Your task to perform on an android device: Open internet settings Image 0: 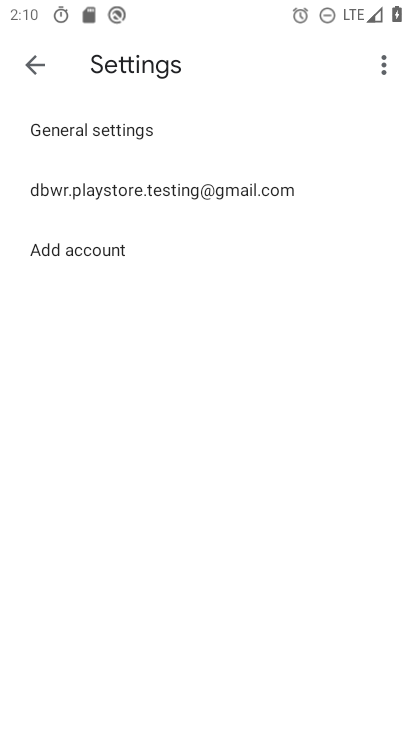
Step 0: press home button
Your task to perform on an android device: Open internet settings Image 1: 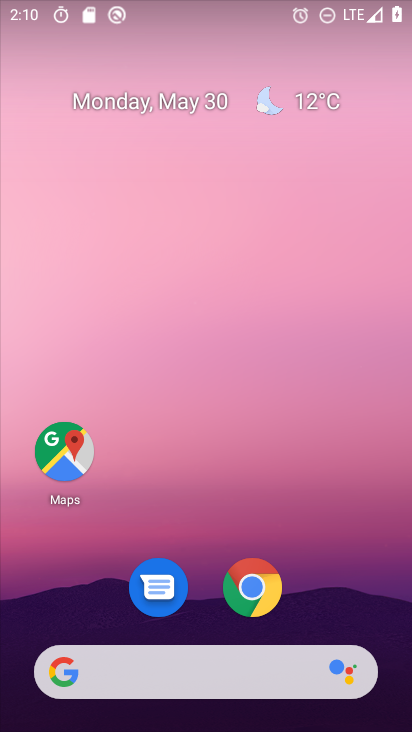
Step 1: drag from (295, 597) to (317, 57)
Your task to perform on an android device: Open internet settings Image 2: 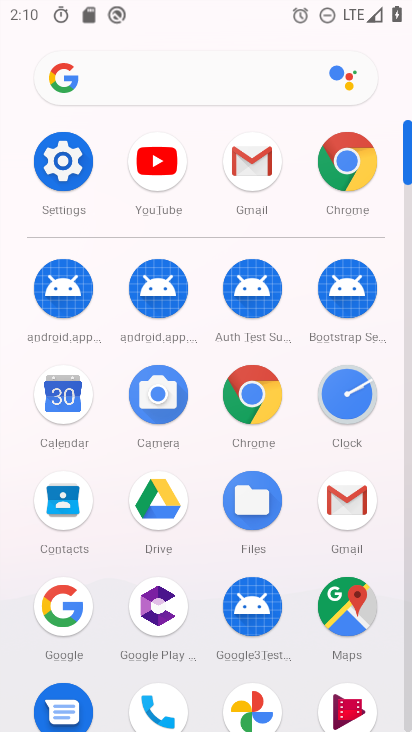
Step 2: click (59, 155)
Your task to perform on an android device: Open internet settings Image 3: 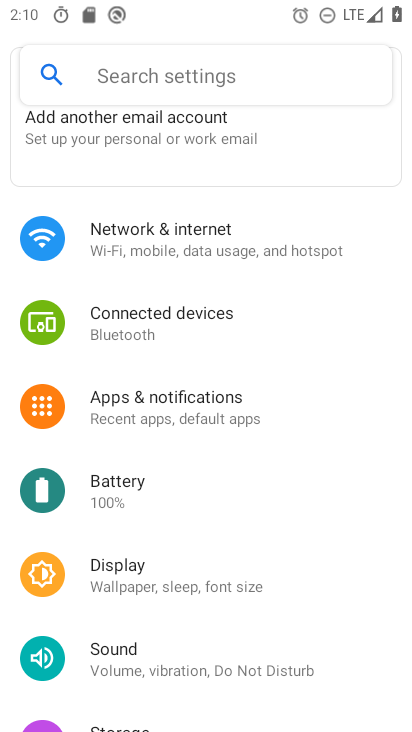
Step 3: click (155, 226)
Your task to perform on an android device: Open internet settings Image 4: 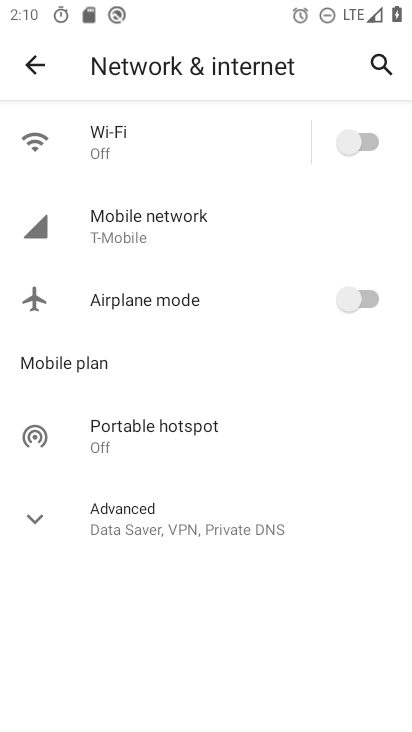
Step 4: click (112, 522)
Your task to perform on an android device: Open internet settings Image 5: 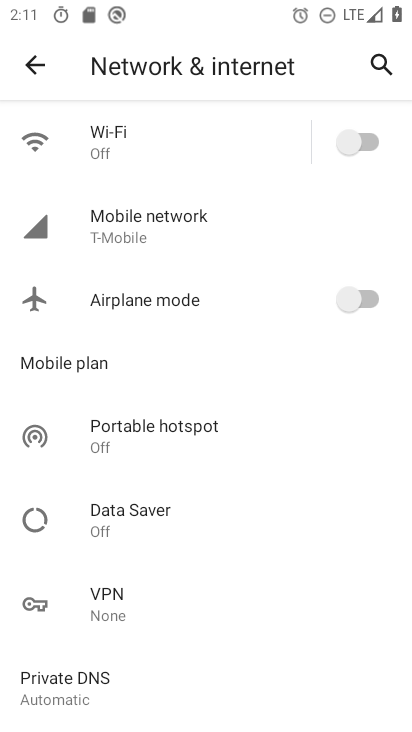
Step 5: task complete